Your task to perform on an android device: find photos in the google photos app Image 0: 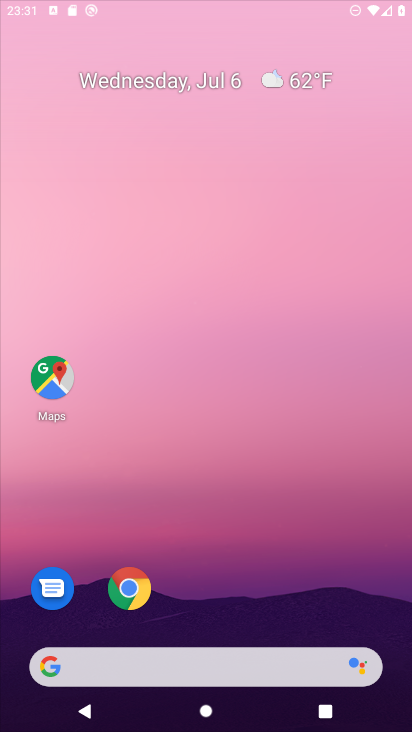
Step 0: click (327, 22)
Your task to perform on an android device: find photos in the google photos app Image 1: 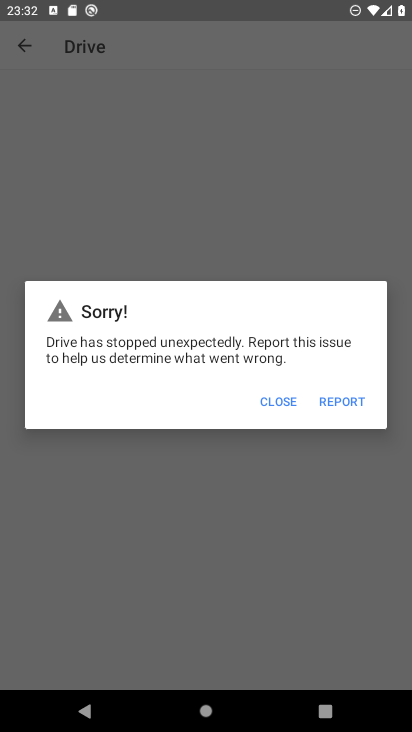
Step 1: press home button
Your task to perform on an android device: find photos in the google photos app Image 2: 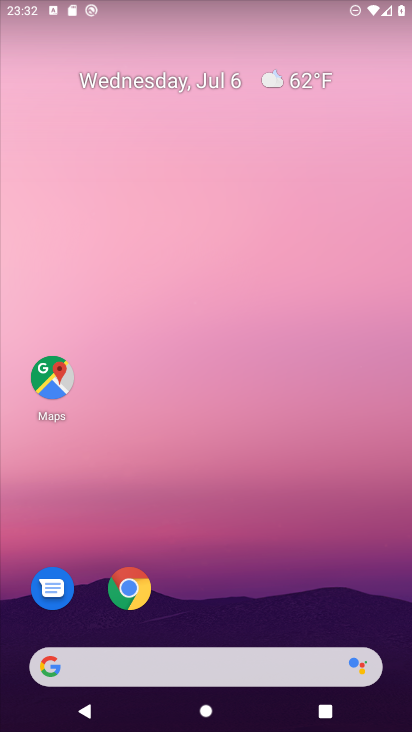
Step 2: drag from (275, 616) to (284, 73)
Your task to perform on an android device: find photos in the google photos app Image 3: 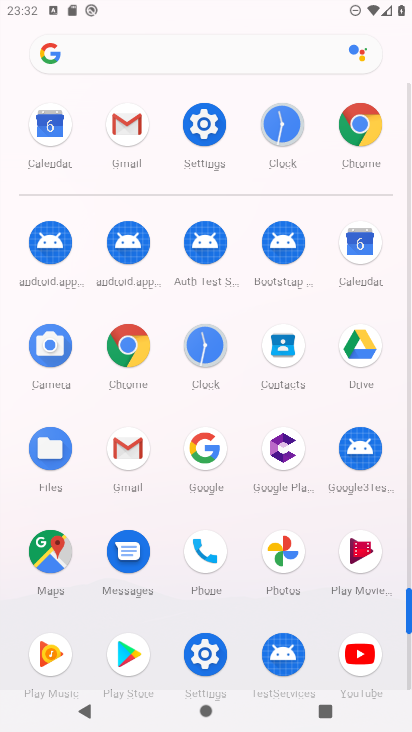
Step 3: click (287, 550)
Your task to perform on an android device: find photos in the google photos app Image 4: 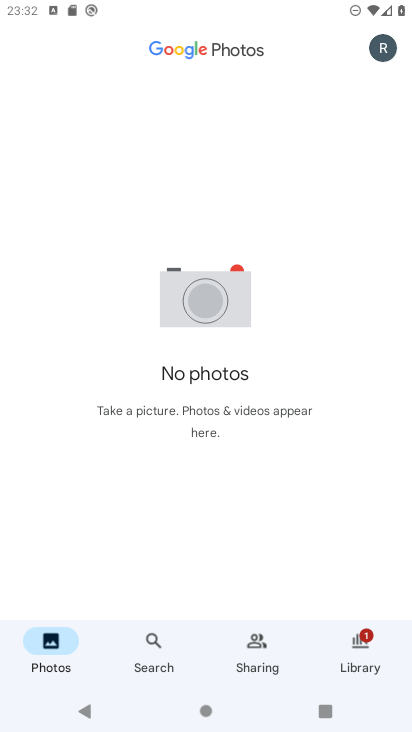
Step 4: task complete